Your task to perform on an android device: turn notification dots on Image 0: 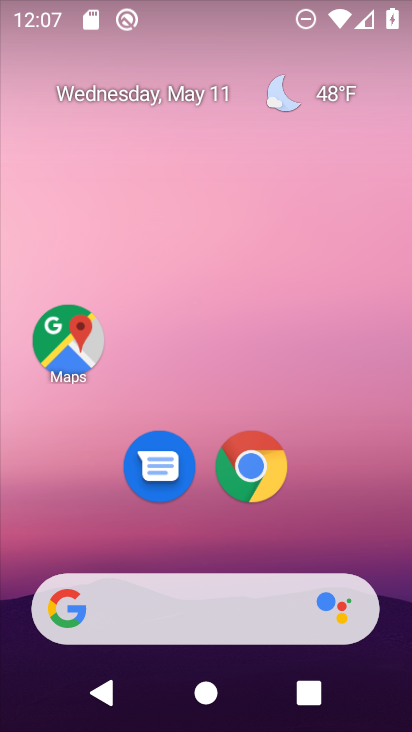
Step 0: press home button
Your task to perform on an android device: turn notification dots on Image 1: 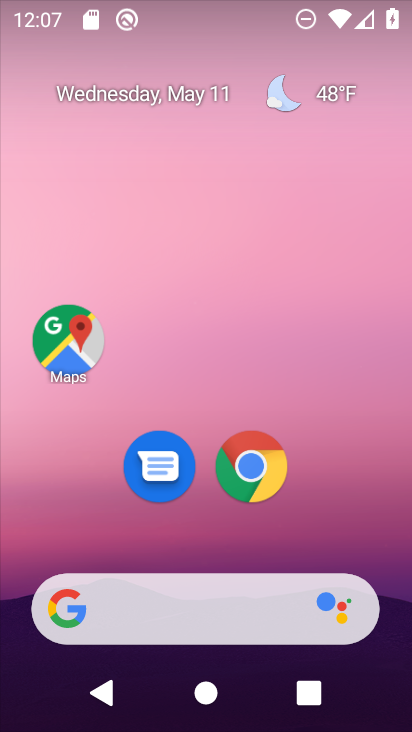
Step 1: drag from (216, 552) to (212, 58)
Your task to perform on an android device: turn notification dots on Image 2: 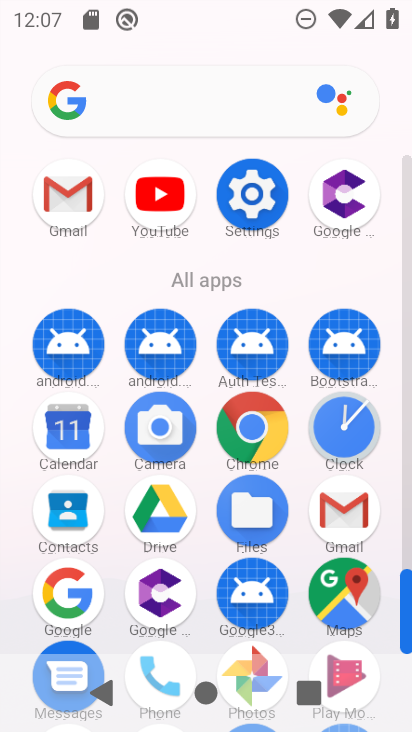
Step 2: click (248, 189)
Your task to perform on an android device: turn notification dots on Image 3: 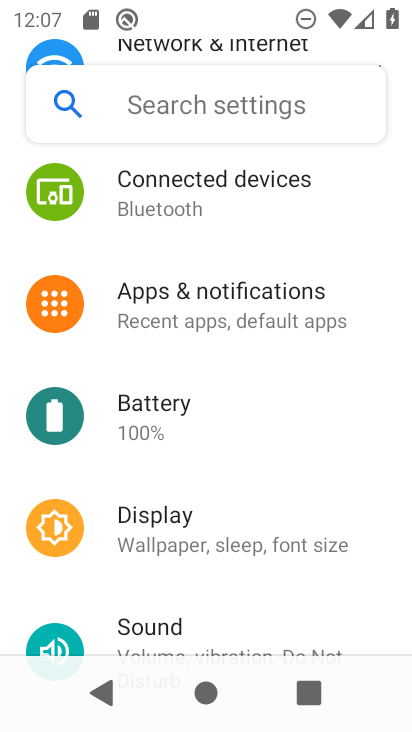
Step 3: click (228, 302)
Your task to perform on an android device: turn notification dots on Image 4: 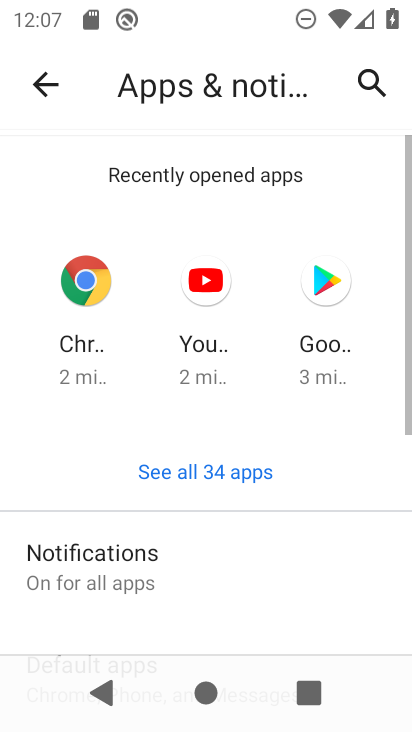
Step 4: click (180, 558)
Your task to perform on an android device: turn notification dots on Image 5: 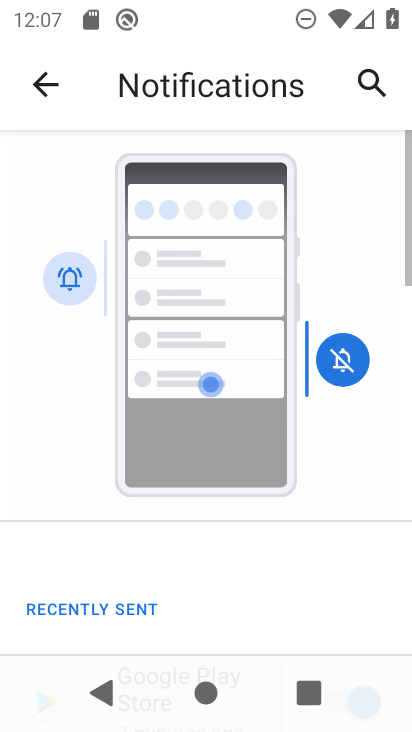
Step 5: drag from (220, 612) to (212, 147)
Your task to perform on an android device: turn notification dots on Image 6: 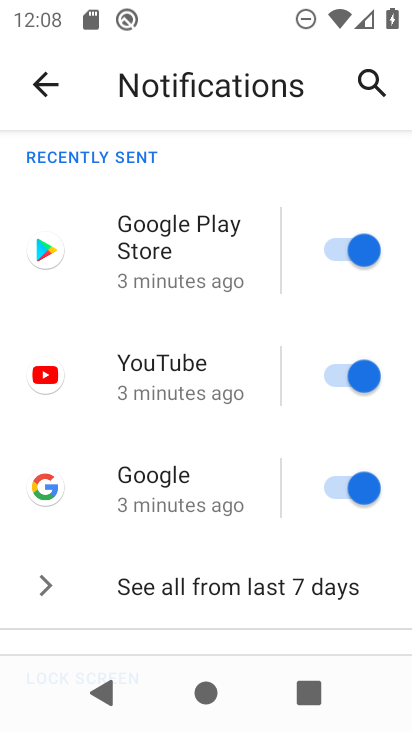
Step 6: drag from (234, 609) to (237, 124)
Your task to perform on an android device: turn notification dots on Image 7: 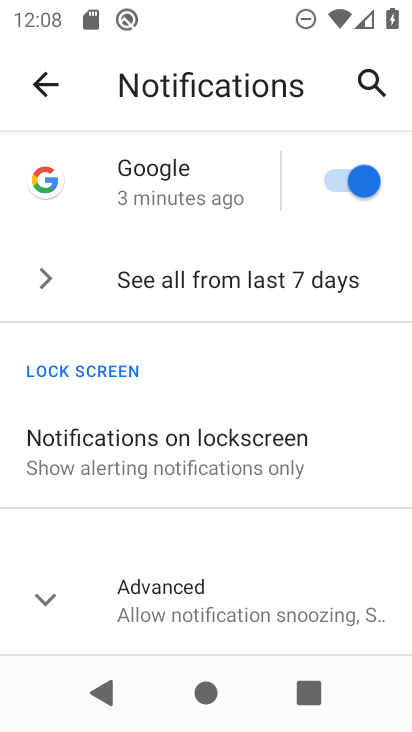
Step 7: click (39, 606)
Your task to perform on an android device: turn notification dots on Image 8: 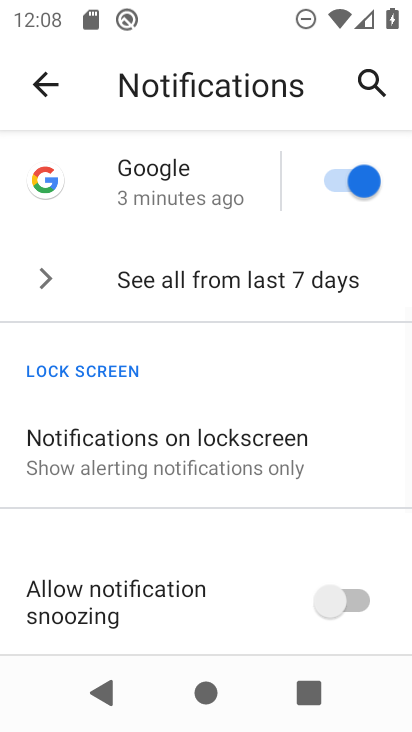
Step 8: task complete